Your task to perform on an android device: Add bose soundsport free to the cart on costco.com, then select checkout. Image 0: 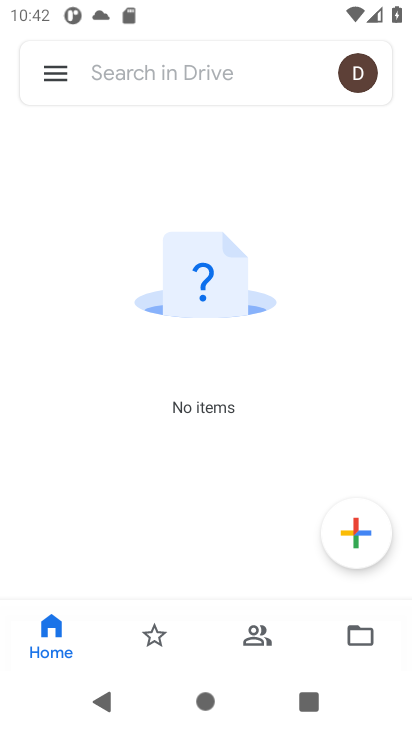
Step 0: press home button
Your task to perform on an android device: Add bose soundsport free to the cart on costco.com, then select checkout. Image 1: 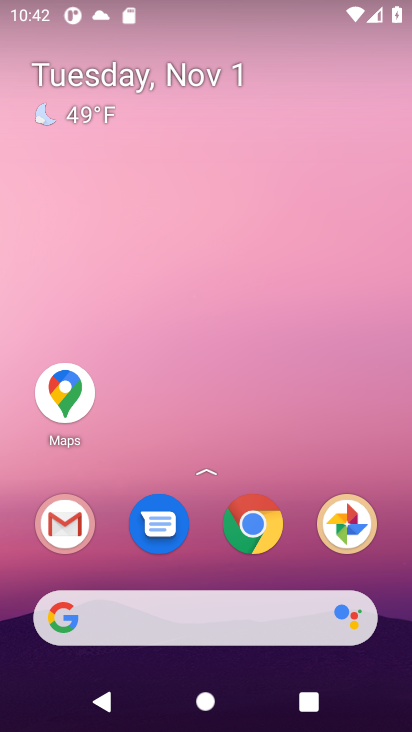
Step 1: click (97, 615)
Your task to perform on an android device: Add bose soundsport free to the cart on costco.com, then select checkout. Image 2: 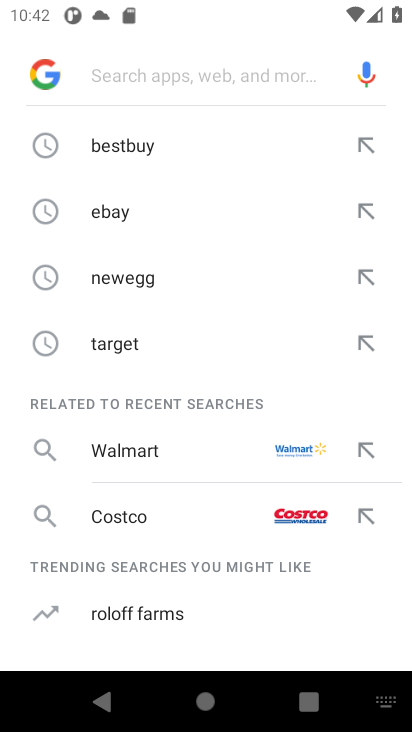
Step 2: type "costco.com"
Your task to perform on an android device: Add bose soundsport free to the cart on costco.com, then select checkout. Image 3: 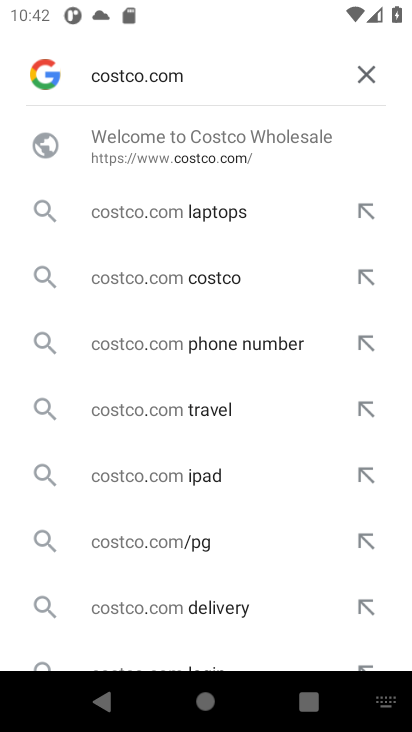
Step 3: press enter
Your task to perform on an android device: Add bose soundsport free to the cart on costco.com, then select checkout. Image 4: 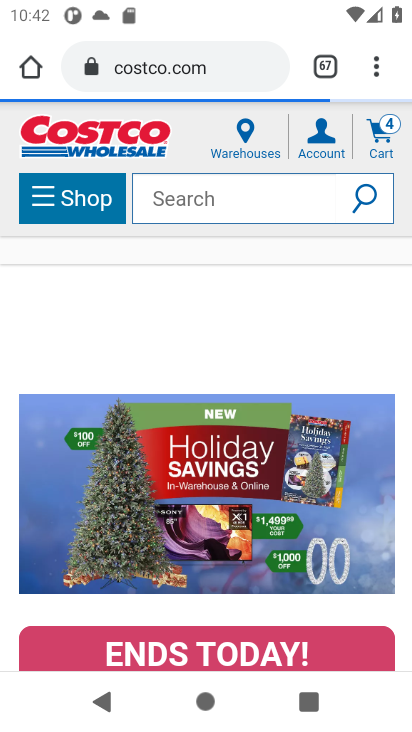
Step 4: click (177, 193)
Your task to perform on an android device: Add bose soundsport free to the cart on costco.com, then select checkout. Image 5: 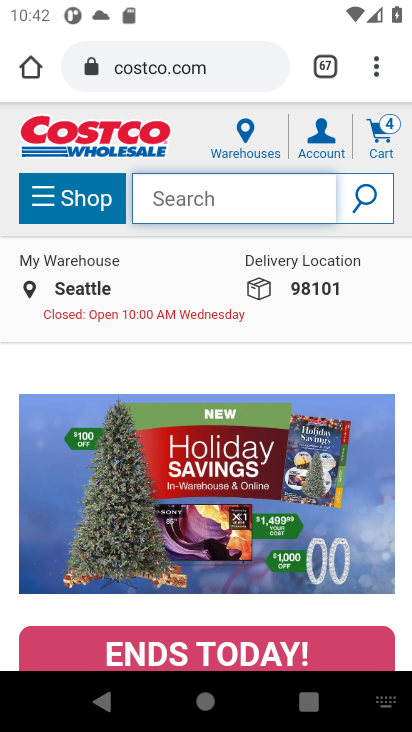
Step 5: press enter
Your task to perform on an android device: Add bose soundsport free to the cart on costco.com, then select checkout. Image 6: 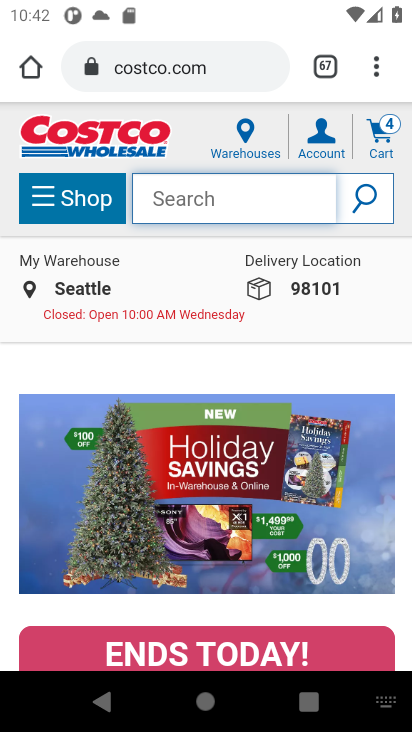
Step 6: type "bose soundsport free"
Your task to perform on an android device: Add bose soundsport free to the cart on costco.com, then select checkout. Image 7: 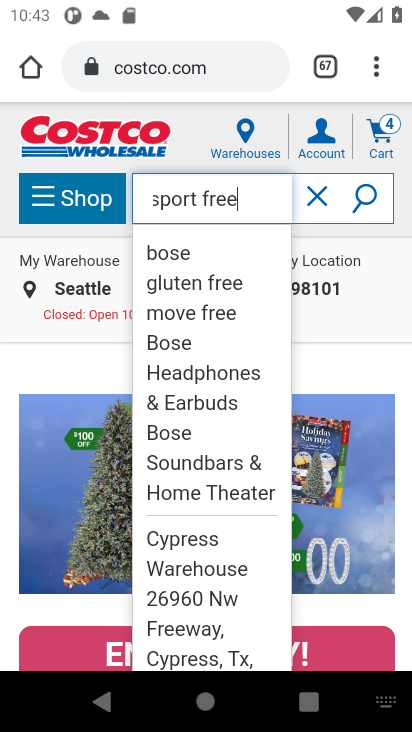
Step 7: click (362, 190)
Your task to perform on an android device: Add bose soundsport free to the cart on costco.com, then select checkout. Image 8: 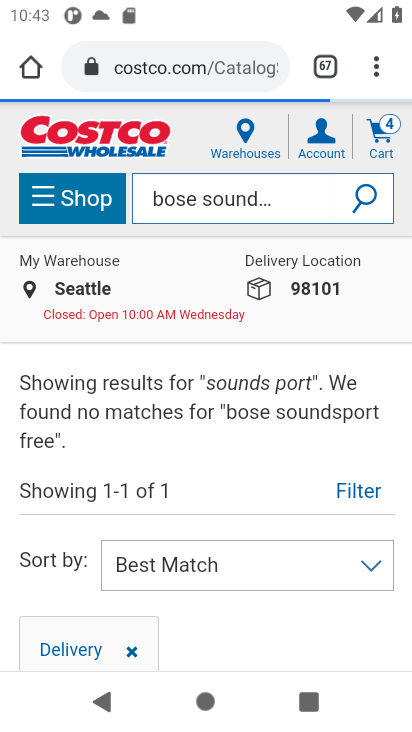
Step 8: task complete